Your task to perform on an android device: Search for macbook pro on costco.com, select the first entry, and add it to the cart. Image 0: 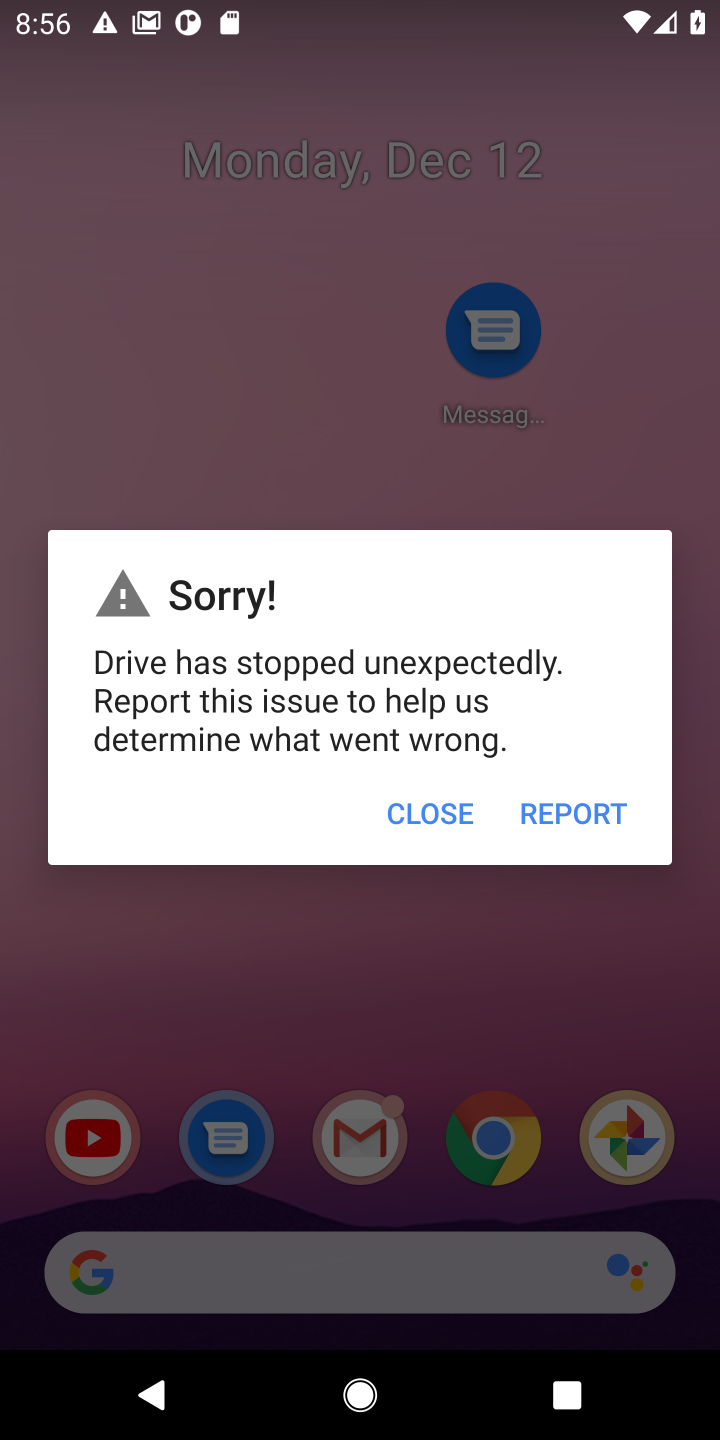
Step 0: click (426, 821)
Your task to perform on an android device: Search for macbook pro on costco.com, select the first entry, and add it to the cart. Image 1: 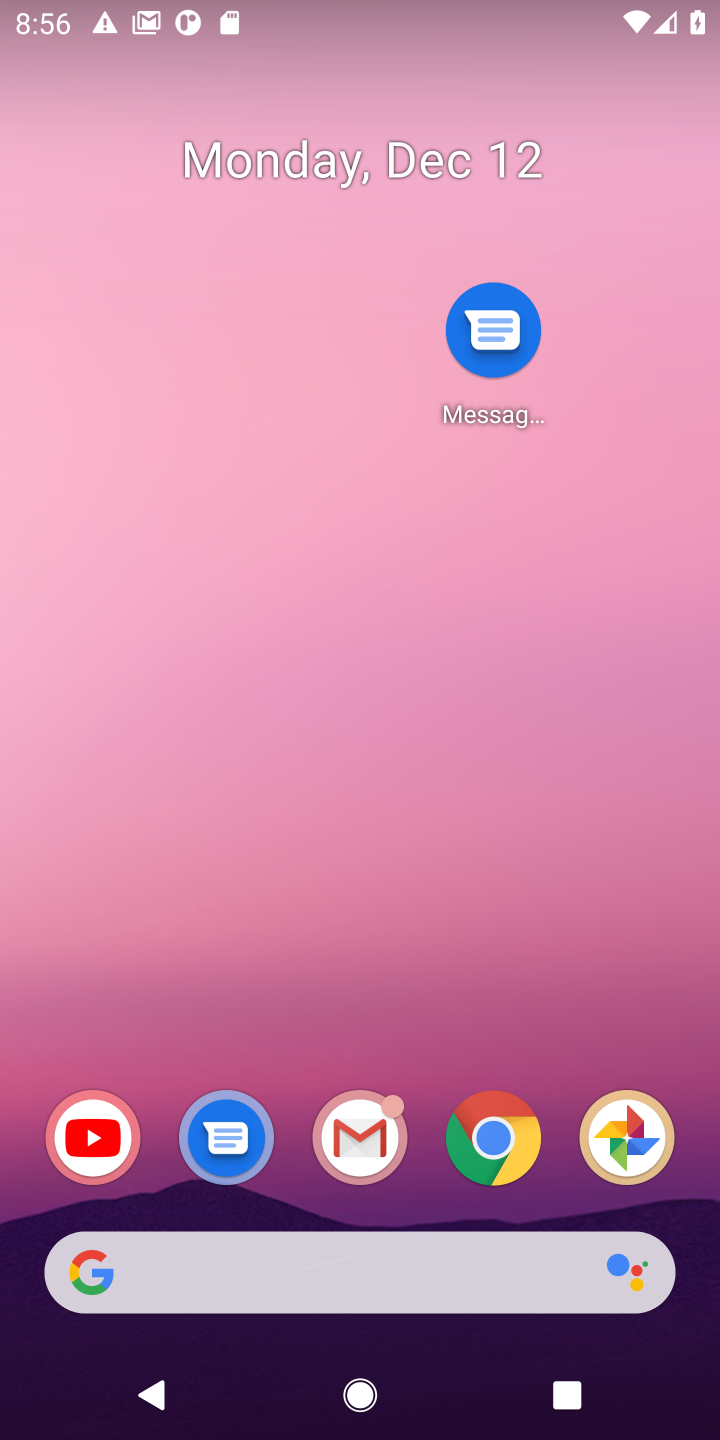
Step 1: drag from (328, 1229) to (271, 325)
Your task to perform on an android device: Search for macbook pro on costco.com, select the first entry, and add it to the cart. Image 2: 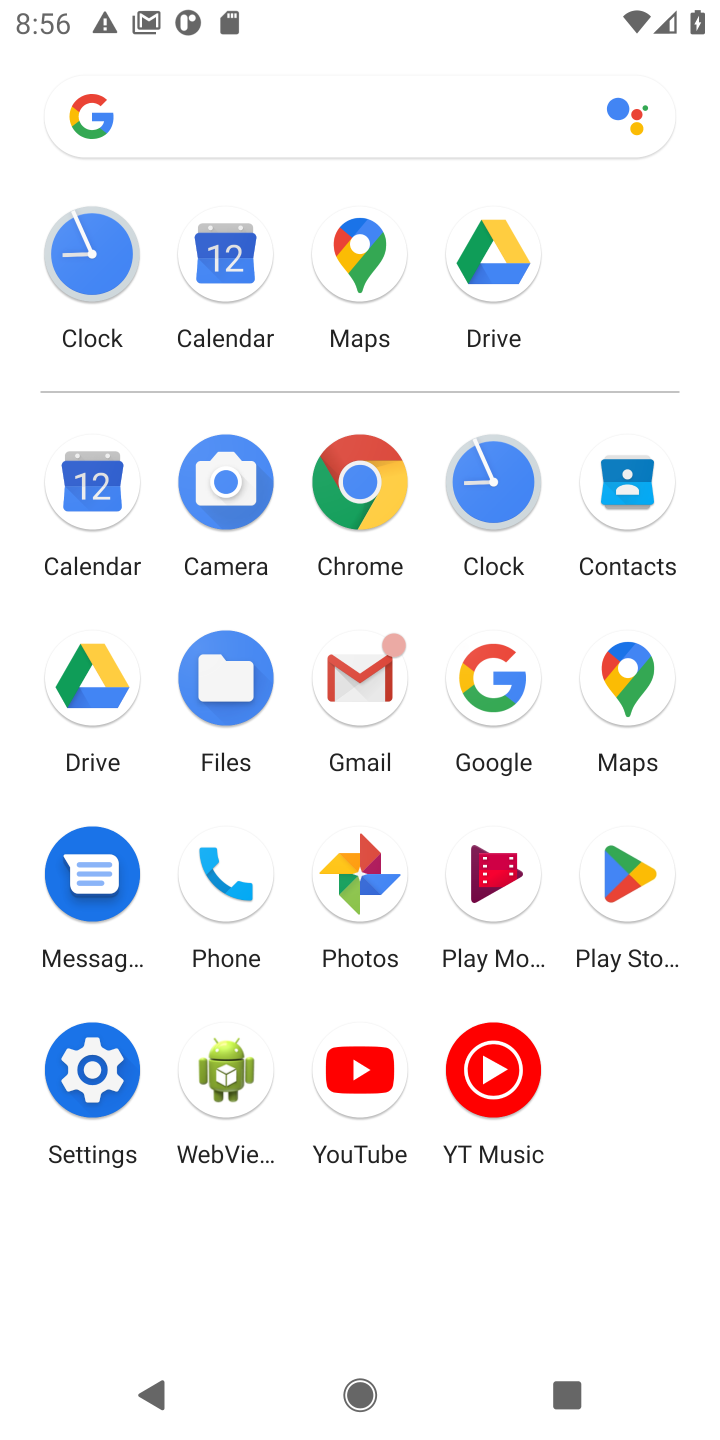
Step 2: click (476, 672)
Your task to perform on an android device: Search for macbook pro on costco.com, select the first entry, and add it to the cart. Image 3: 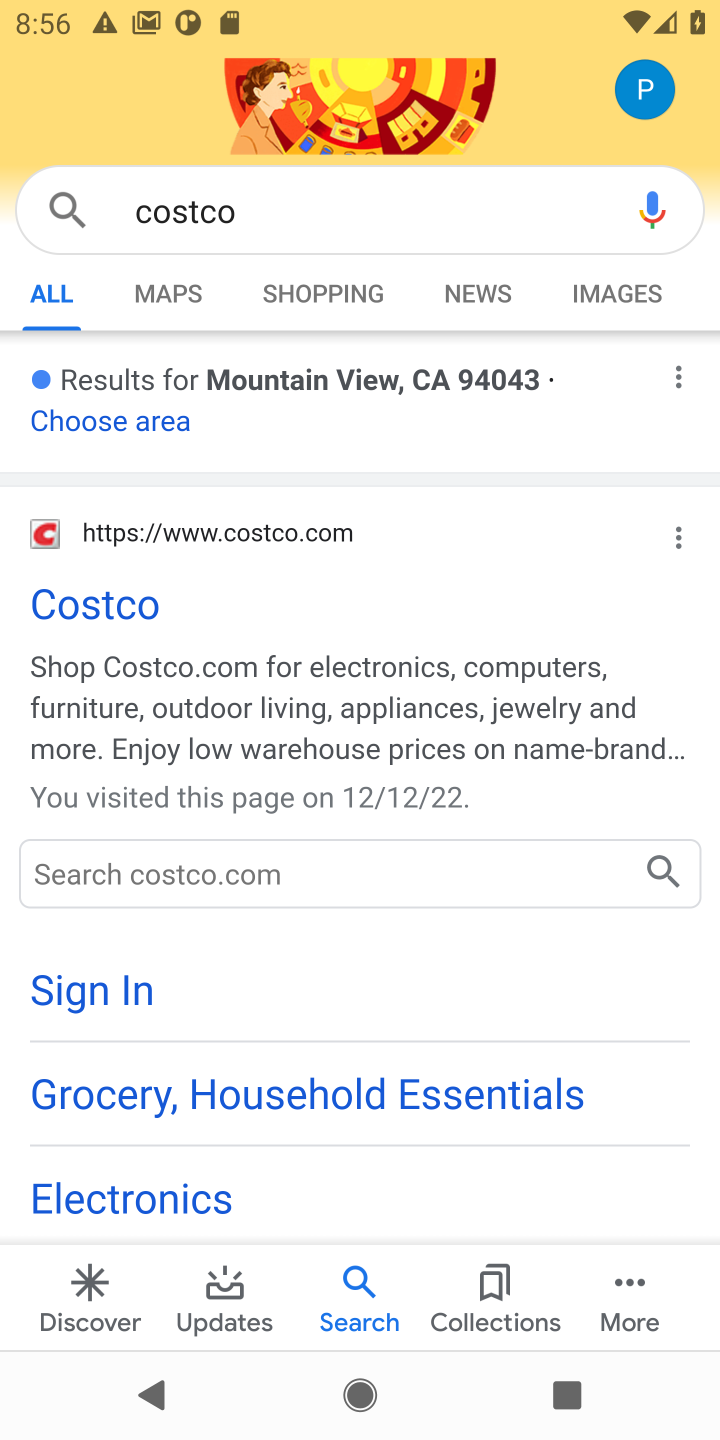
Step 3: click (156, 215)
Your task to perform on an android device: Search for macbook pro on costco.com, select the first entry, and add it to the cart. Image 4: 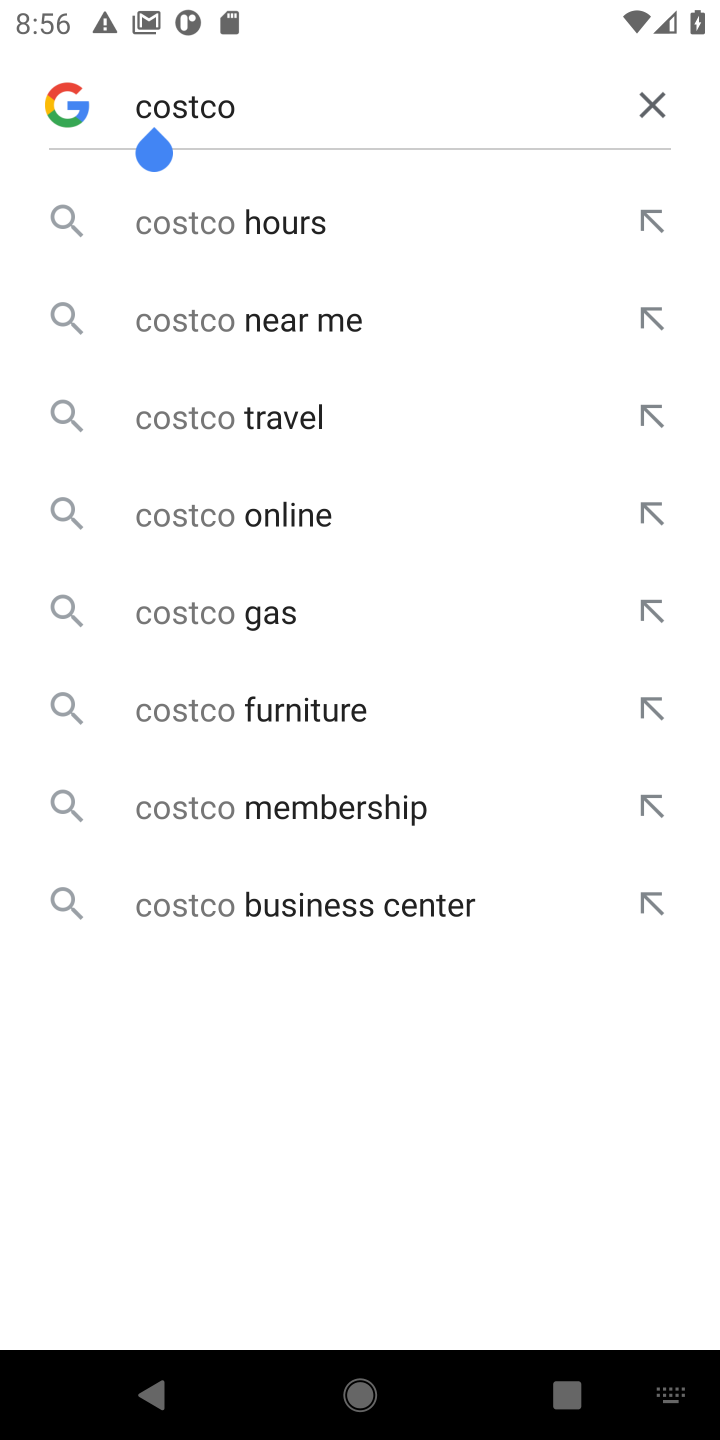
Step 4: click (653, 94)
Your task to perform on an android device: Search for macbook pro on costco.com, select the first entry, and add it to the cart. Image 5: 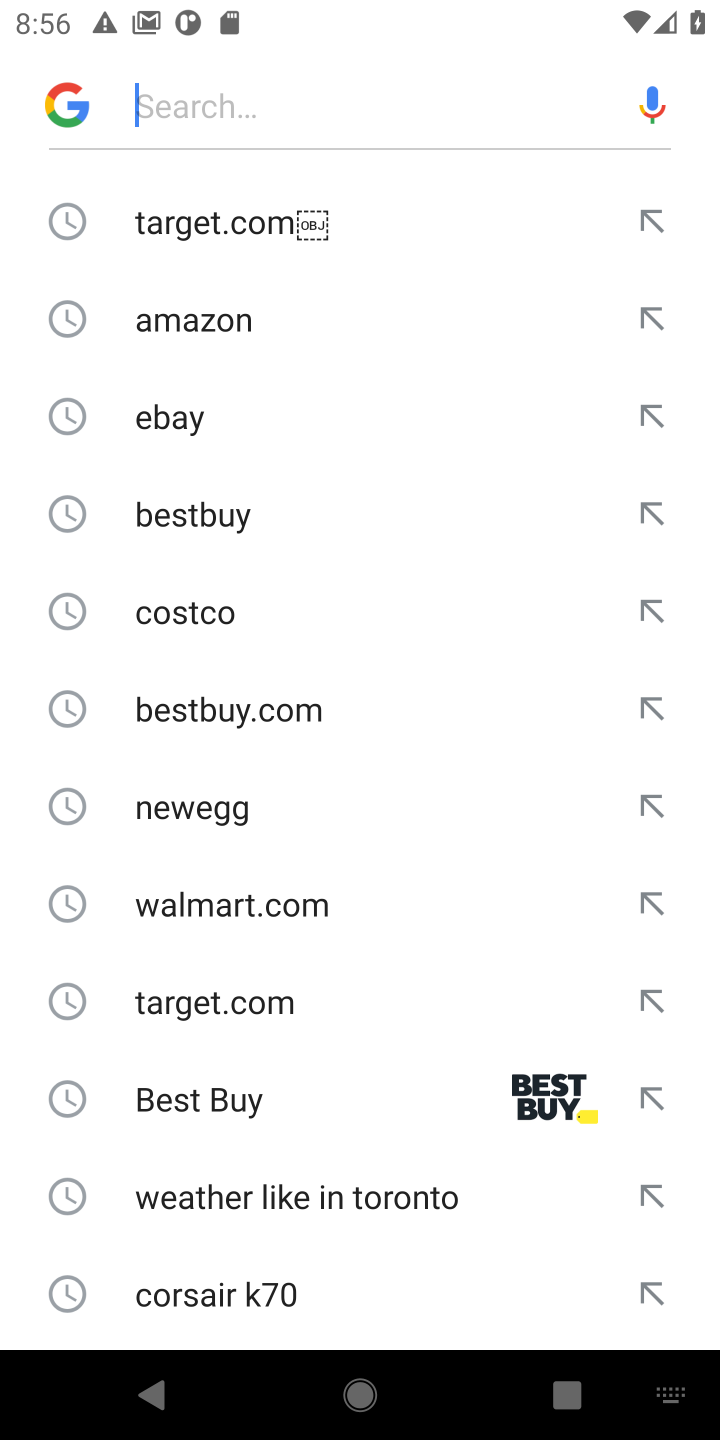
Step 5: click (212, 606)
Your task to perform on an android device: Search for macbook pro on costco.com, select the first entry, and add it to the cart. Image 6: 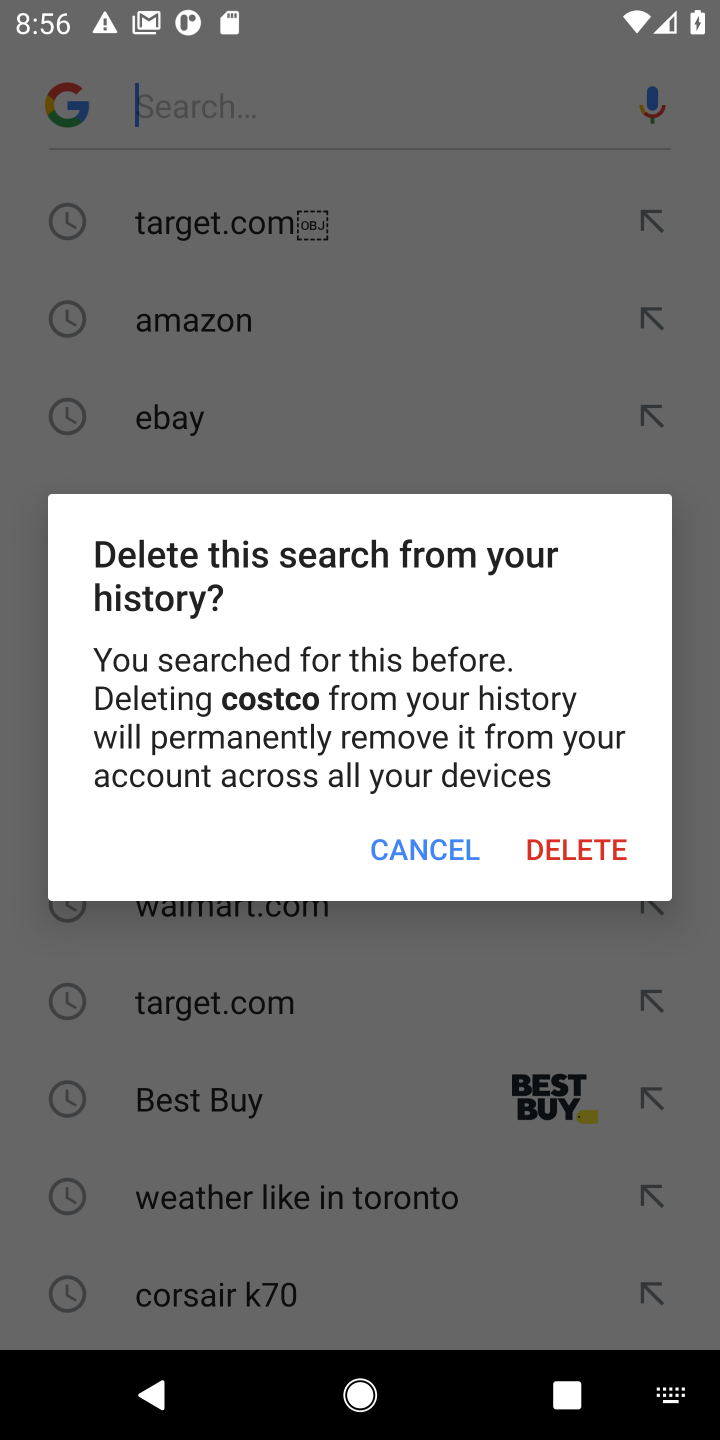
Step 6: click (399, 844)
Your task to perform on an android device: Search for macbook pro on costco.com, select the first entry, and add it to the cart. Image 7: 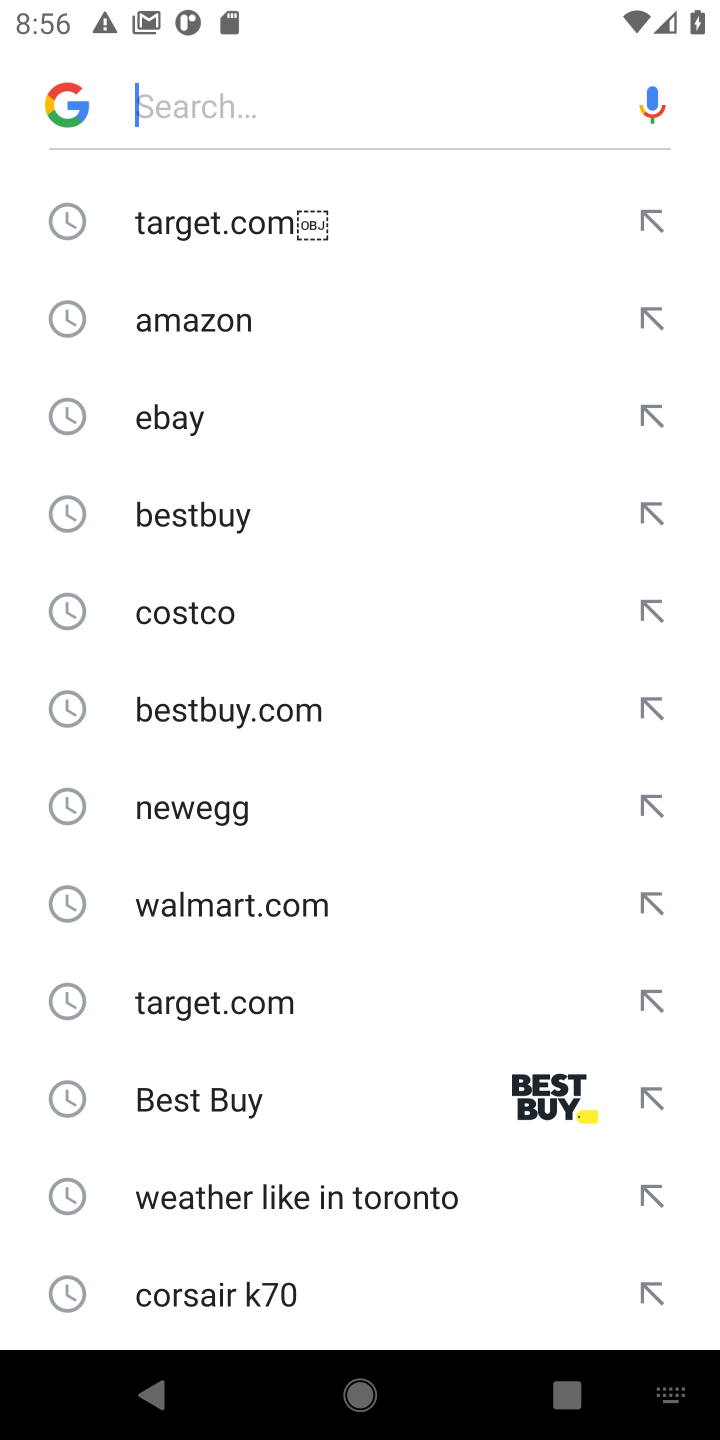
Step 7: click (217, 621)
Your task to perform on an android device: Search for macbook pro on costco.com, select the first entry, and add it to the cart. Image 8: 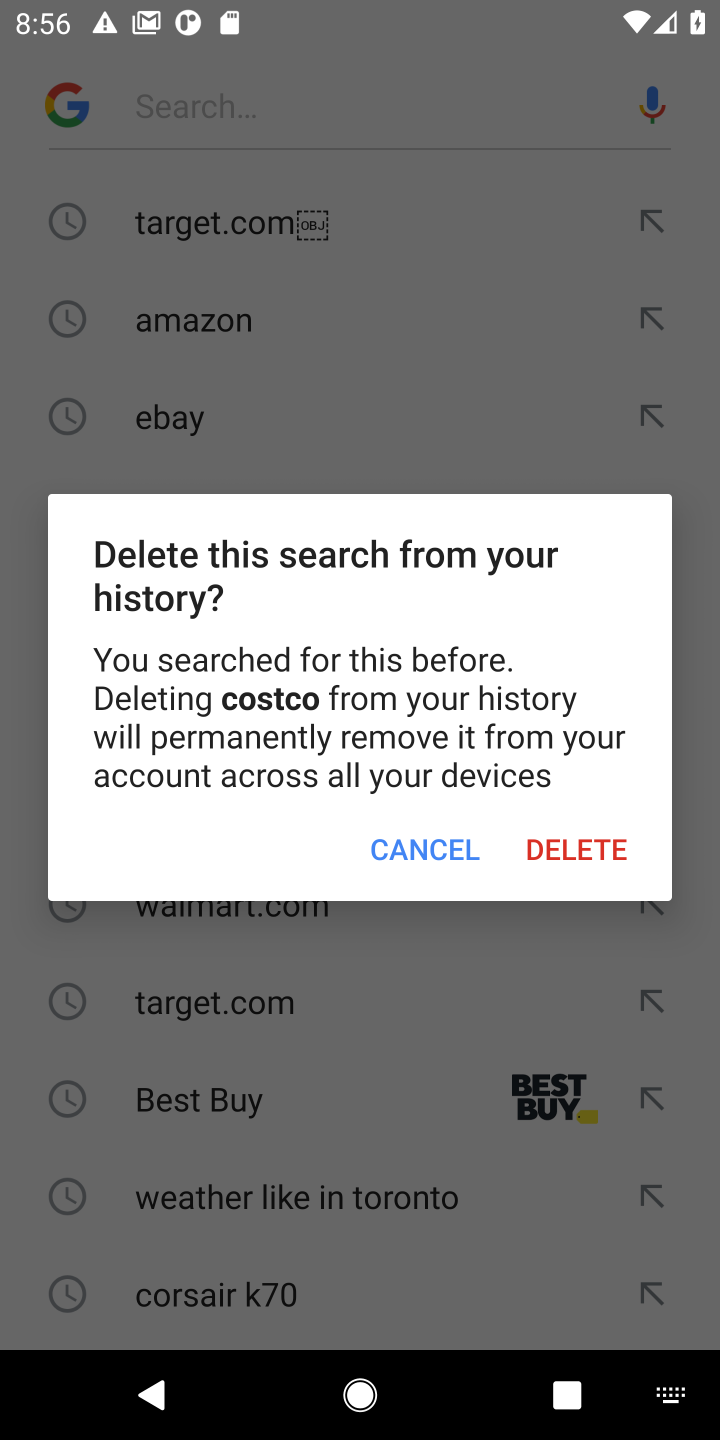
Step 8: click (379, 855)
Your task to perform on an android device: Search for macbook pro on costco.com, select the first entry, and add it to the cart. Image 9: 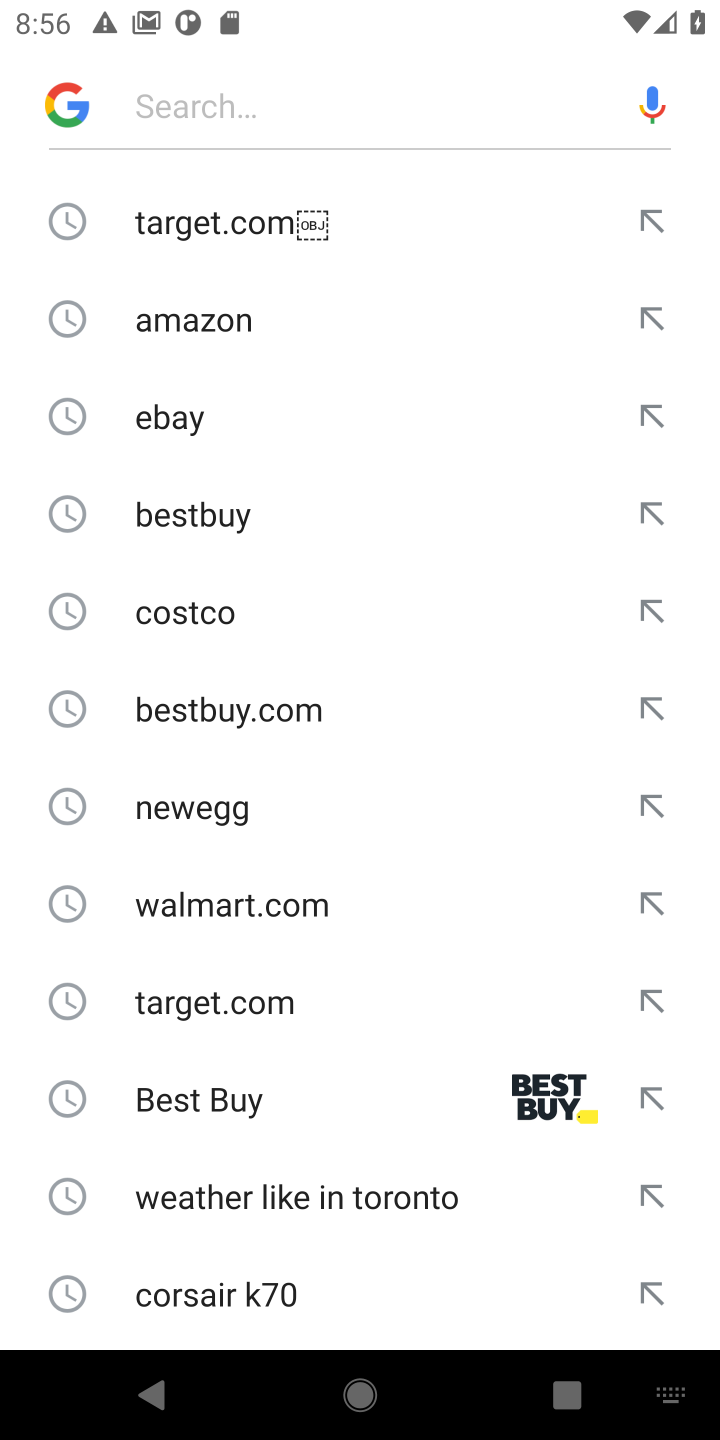
Step 9: click (652, 609)
Your task to perform on an android device: Search for macbook pro on costco.com, select the first entry, and add it to the cart. Image 10: 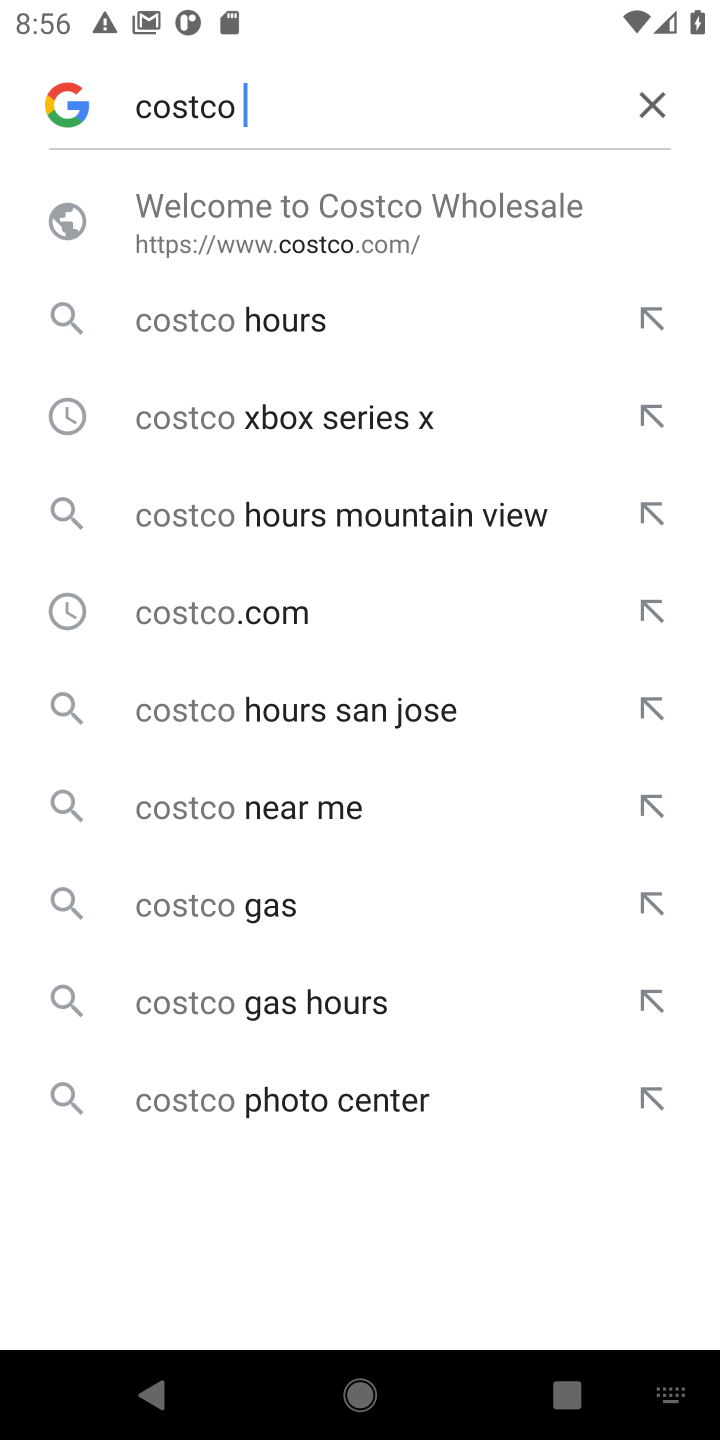
Step 10: click (269, 238)
Your task to perform on an android device: Search for macbook pro on costco.com, select the first entry, and add it to the cart. Image 11: 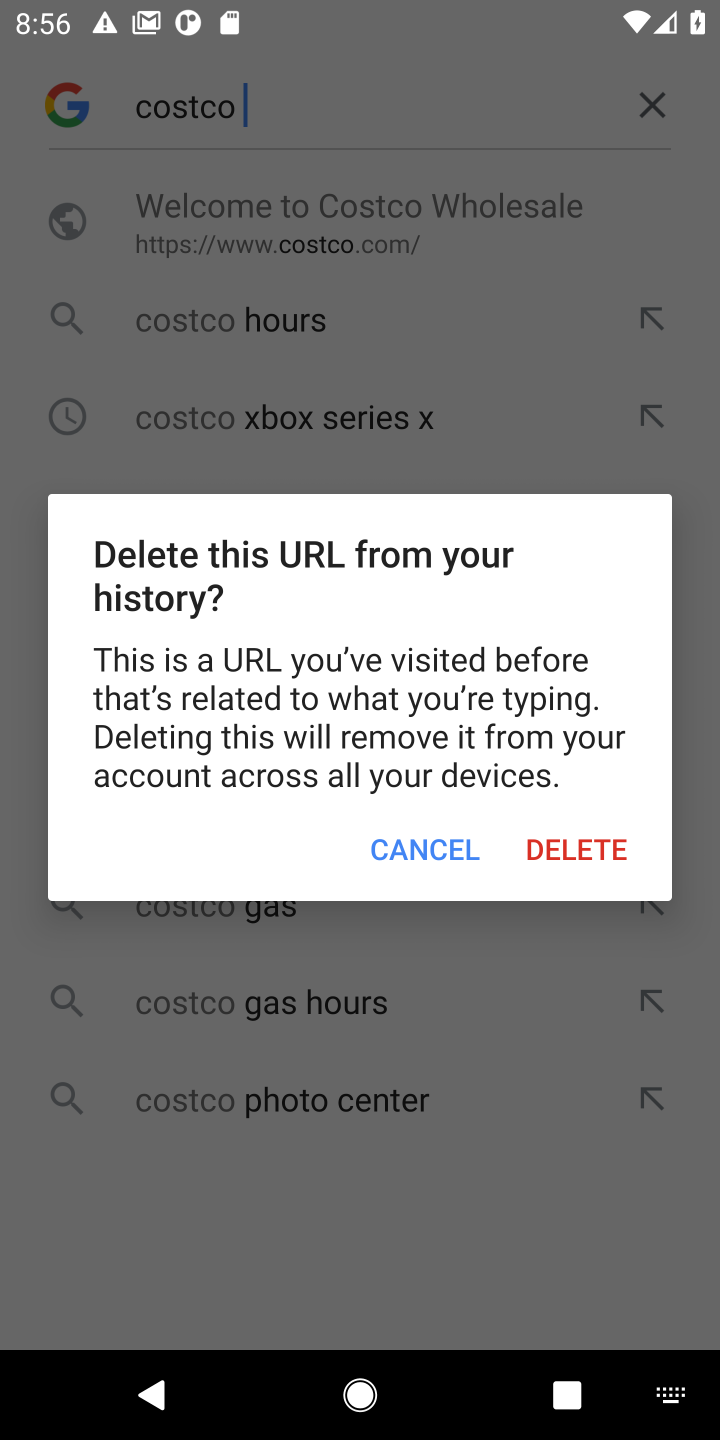
Step 11: click (426, 862)
Your task to perform on an android device: Search for macbook pro on costco.com, select the first entry, and add it to the cart. Image 12: 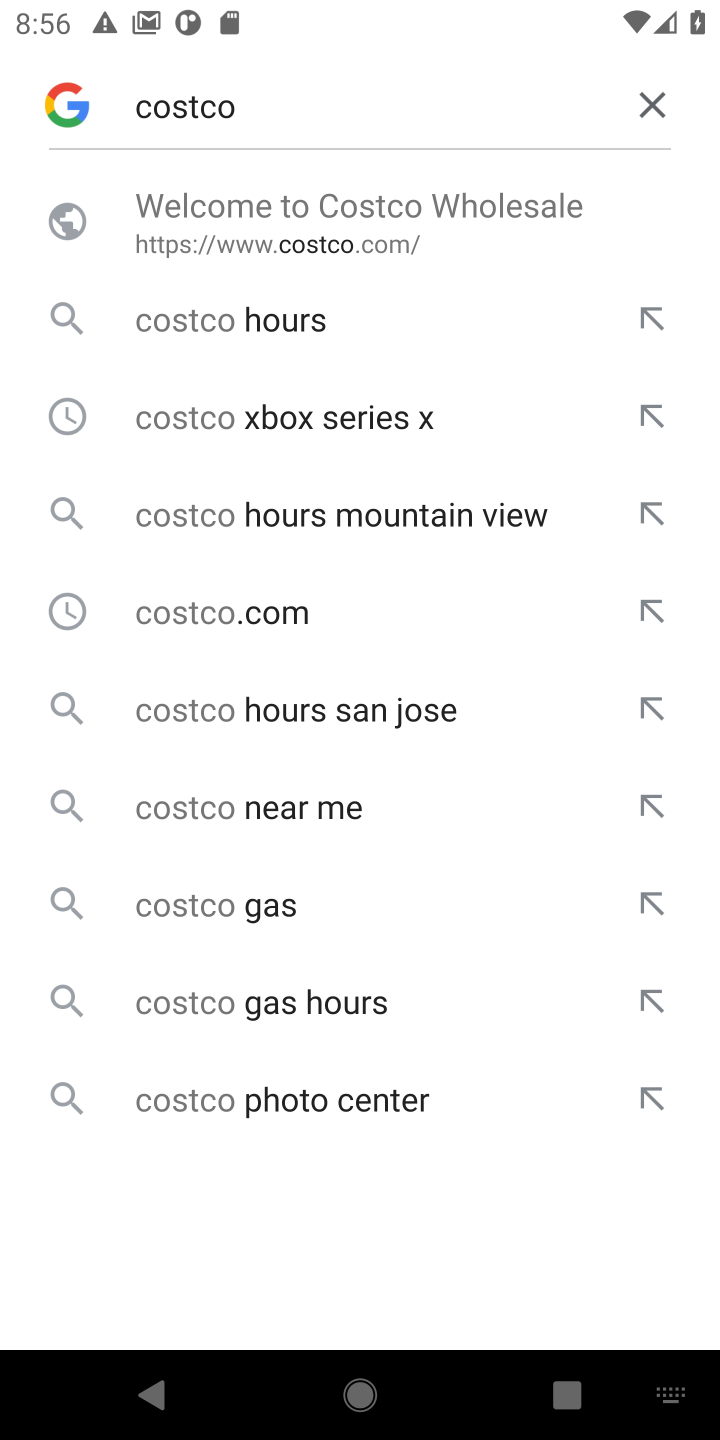
Step 12: click (227, 220)
Your task to perform on an android device: Search for macbook pro on costco.com, select the first entry, and add it to the cart. Image 13: 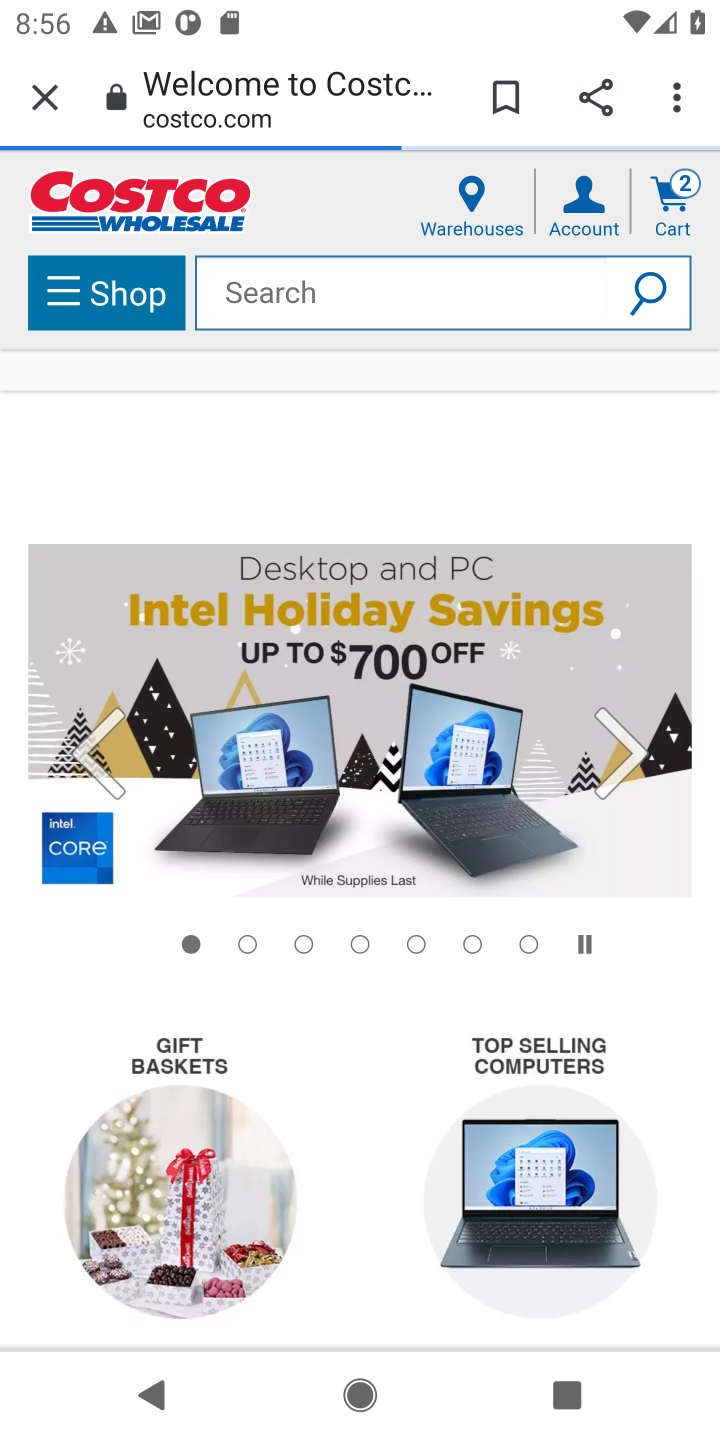
Step 13: click (266, 302)
Your task to perform on an android device: Search for macbook pro on costco.com, select the first entry, and add it to the cart. Image 14: 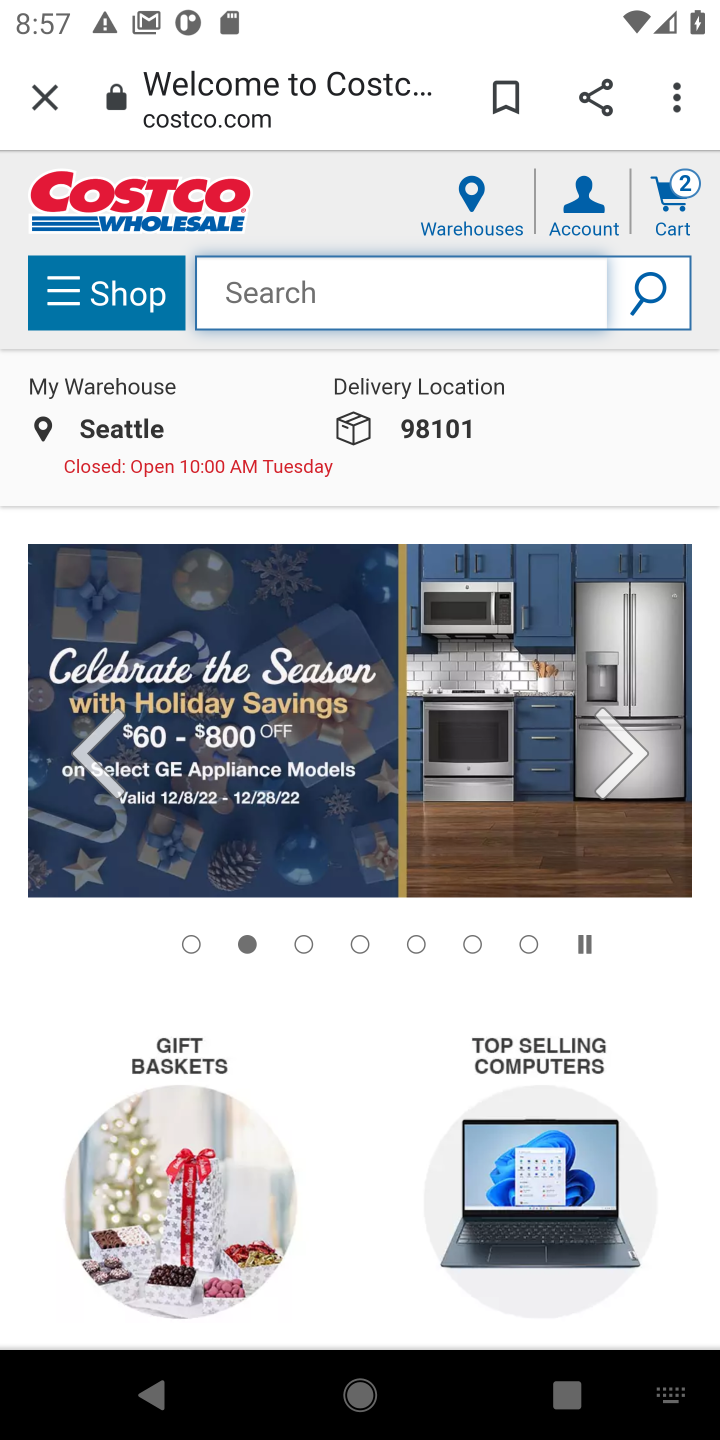
Step 14: type "macbook pro"
Your task to perform on an android device: Search for macbook pro on costco.com, select the first entry, and add it to the cart. Image 15: 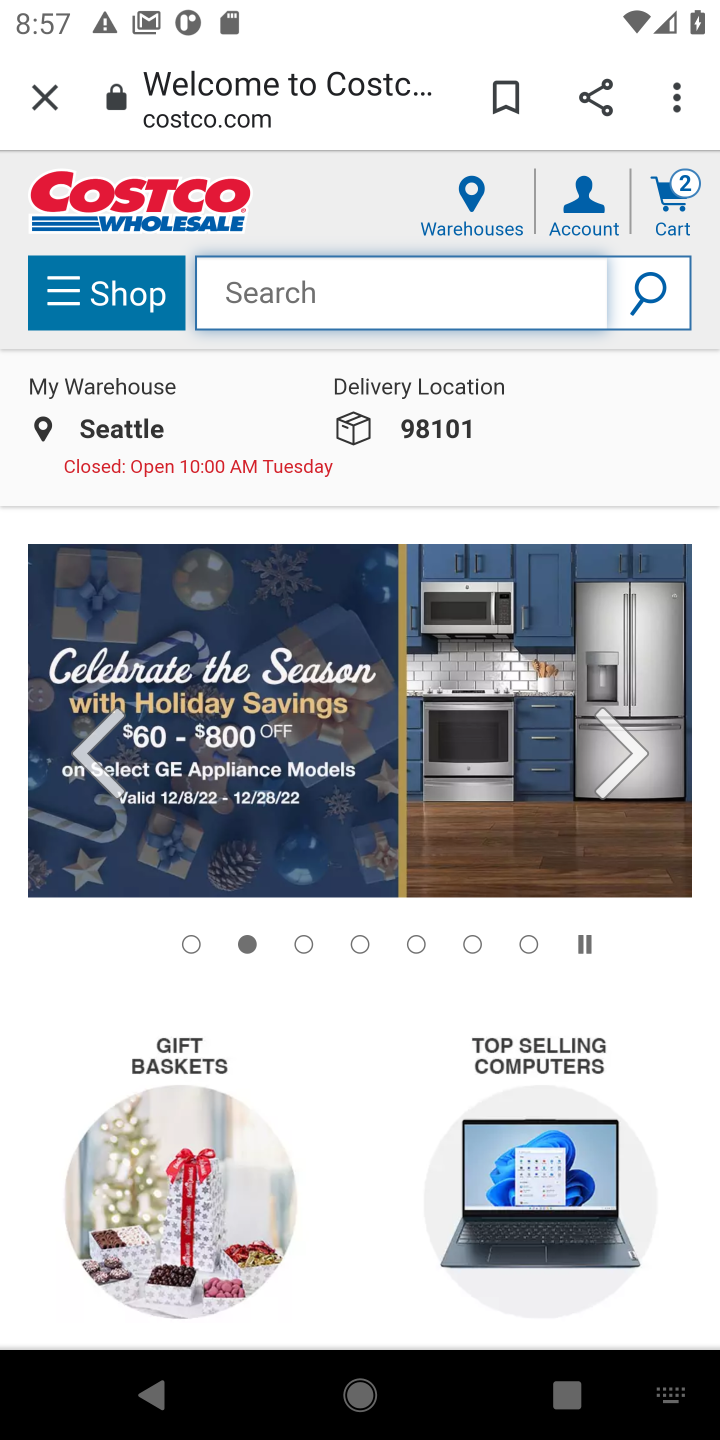
Step 15: click (642, 301)
Your task to perform on an android device: Search for macbook pro on costco.com, select the first entry, and add it to the cart. Image 16: 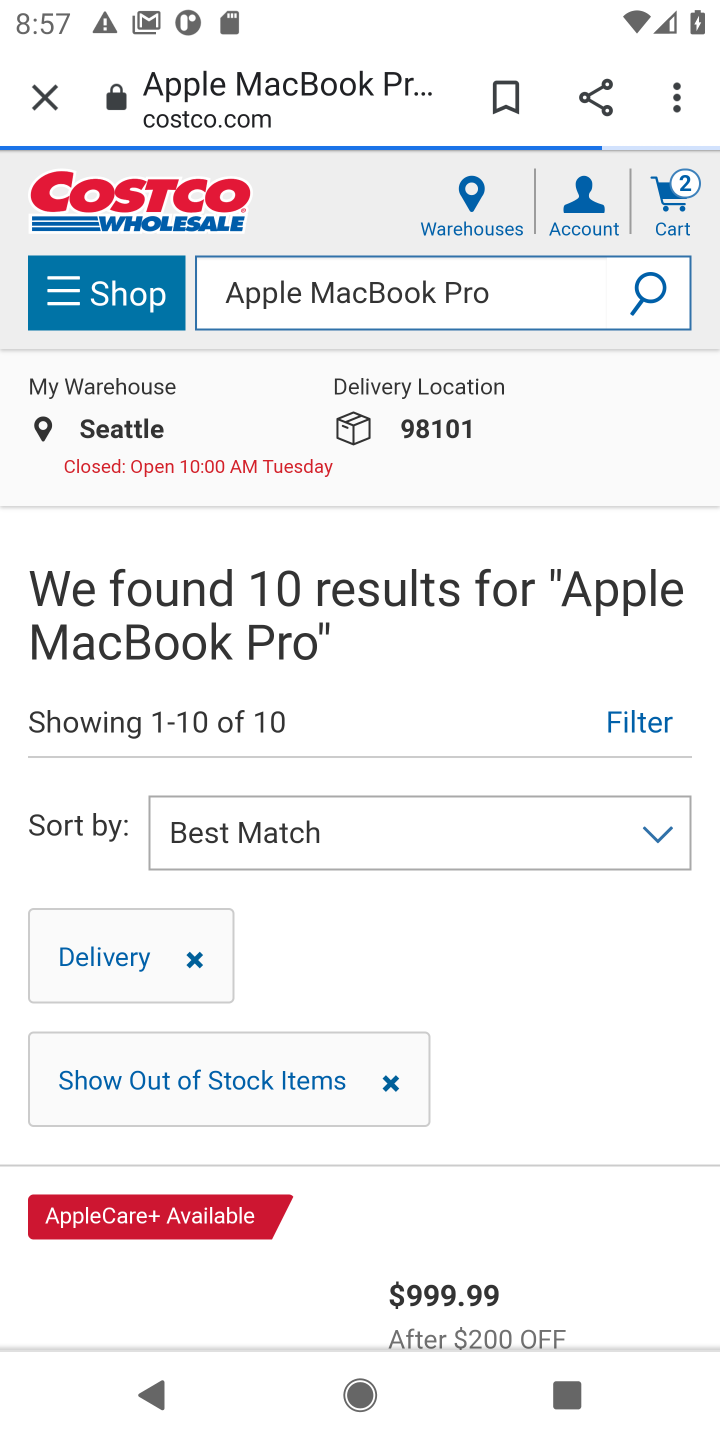
Step 16: task complete